Your task to perform on an android device: Add "lenovo thinkpad" to the cart on target Image 0: 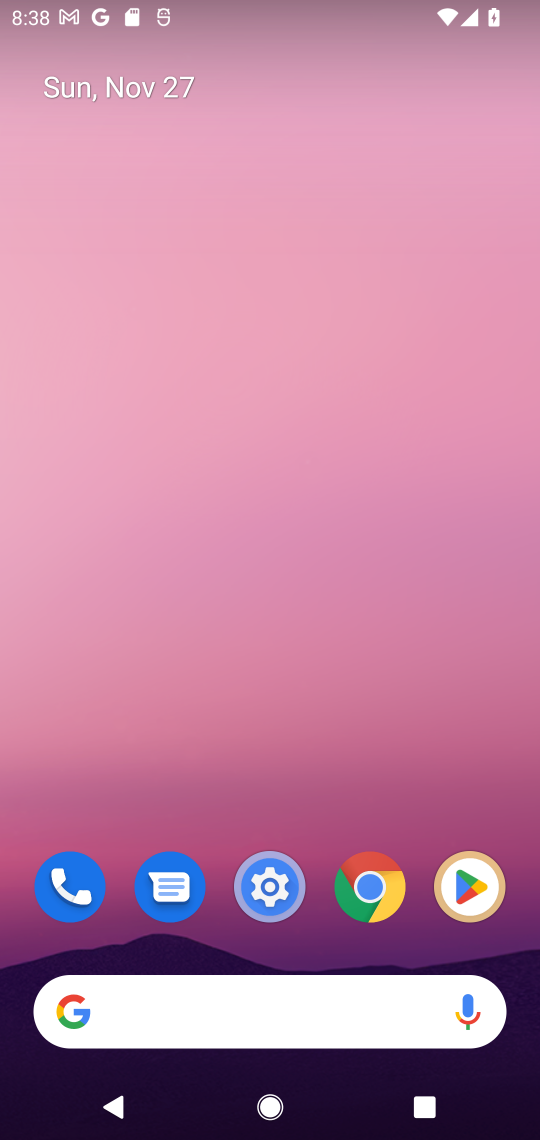
Step 0: click (243, 999)
Your task to perform on an android device: Add "lenovo thinkpad" to the cart on target Image 1: 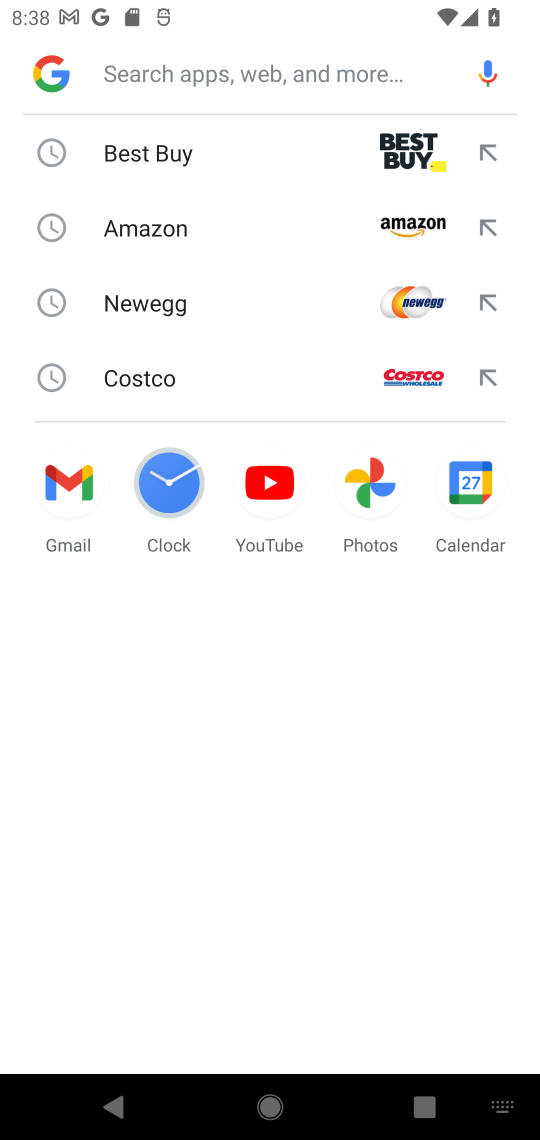
Step 1: type "target"
Your task to perform on an android device: Add "lenovo thinkpad" to the cart on target Image 2: 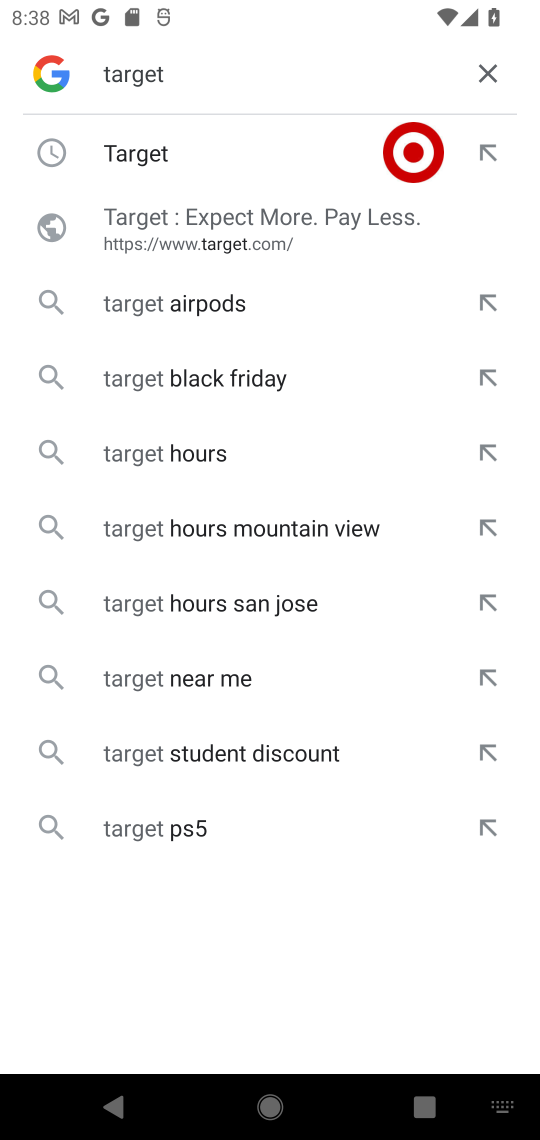
Step 2: click (192, 179)
Your task to perform on an android device: Add "lenovo thinkpad" to the cart on target Image 3: 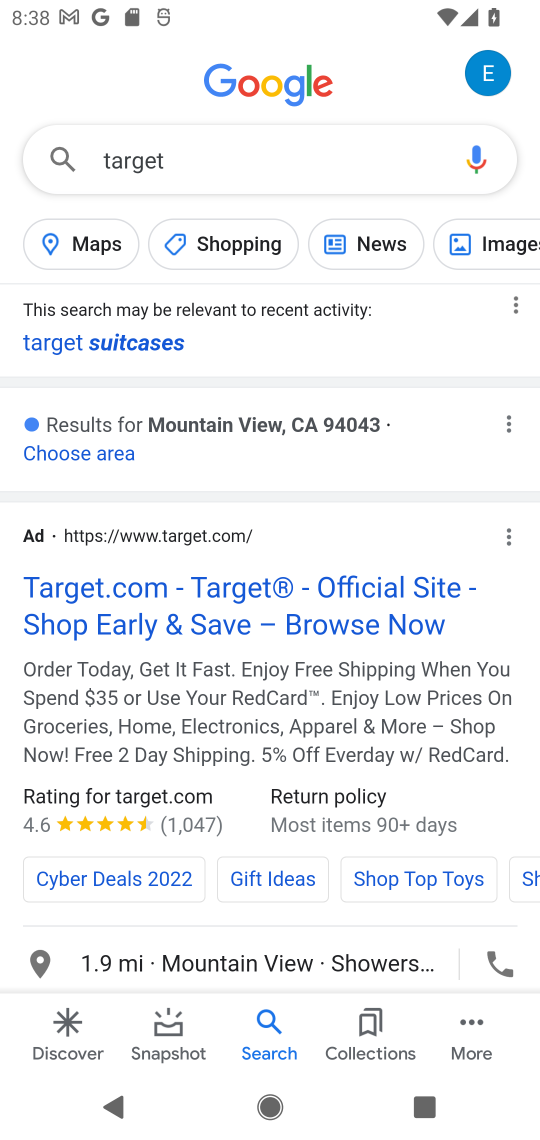
Step 3: click (170, 571)
Your task to perform on an android device: Add "lenovo thinkpad" to the cart on target Image 4: 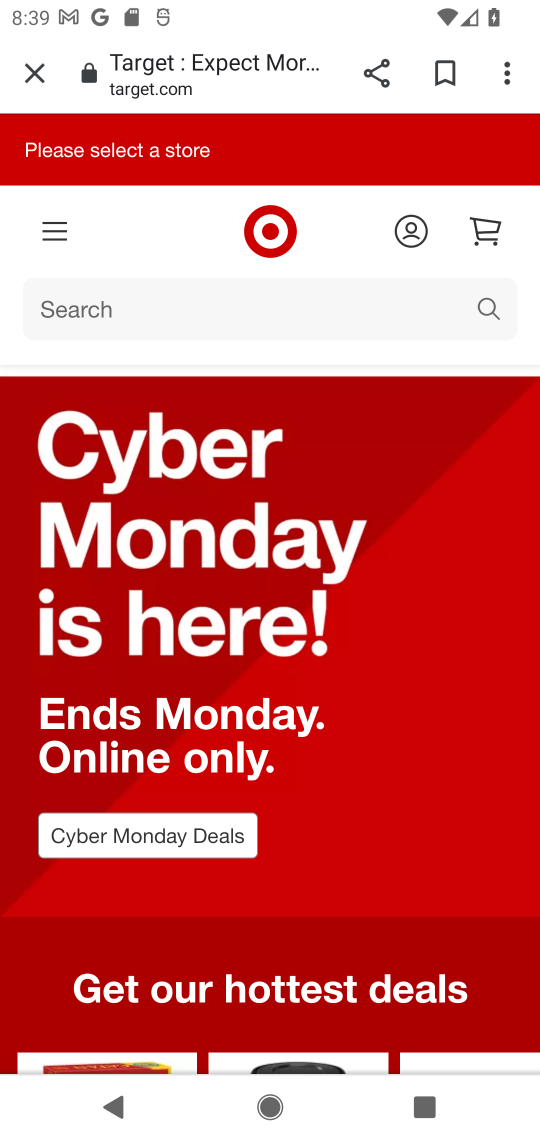
Step 4: task complete